Your task to perform on an android device: turn on javascript in the chrome app Image 0: 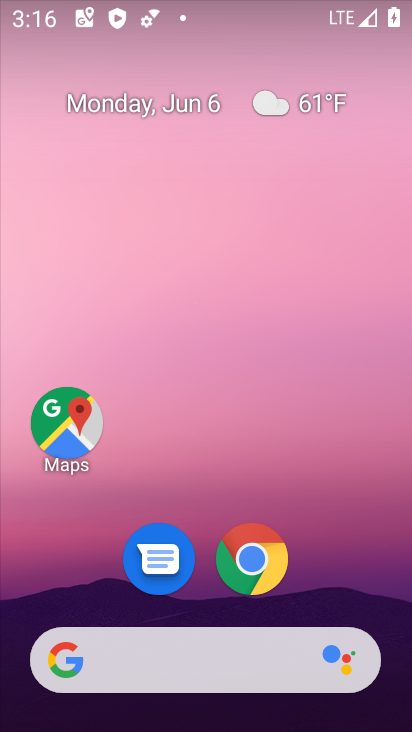
Step 0: click (257, 568)
Your task to perform on an android device: turn on javascript in the chrome app Image 1: 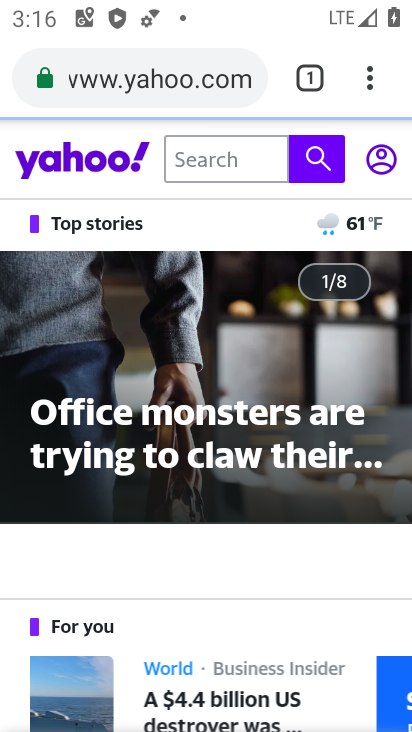
Step 1: drag from (371, 60) to (103, 620)
Your task to perform on an android device: turn on javascript in the chrome app Image 2: 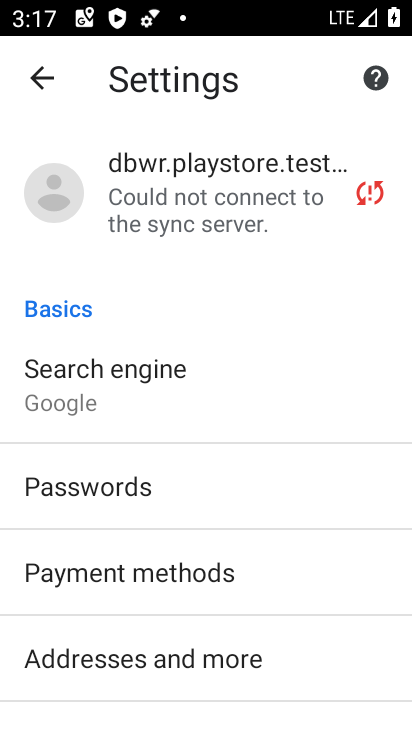
Step 2: drag from (183, 590) to (151, 139)
Your task to perform on an android device: turn on javascript in the chrome app Image 3: 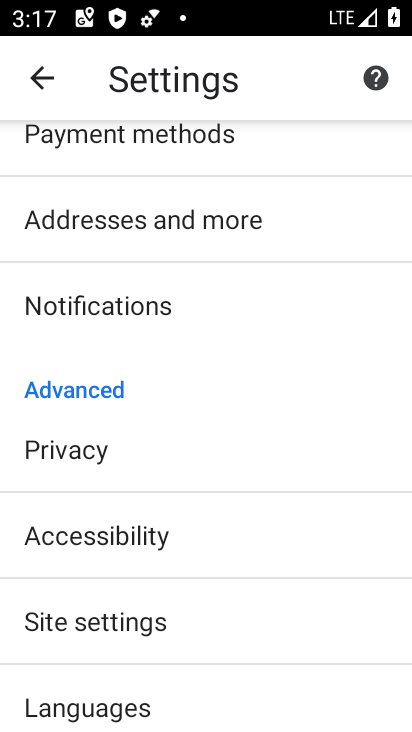
Step 3: drag from (212, 616) to (181, 135)
Your task to perform on an android device: turn on javascript in the chrome app Image 4: 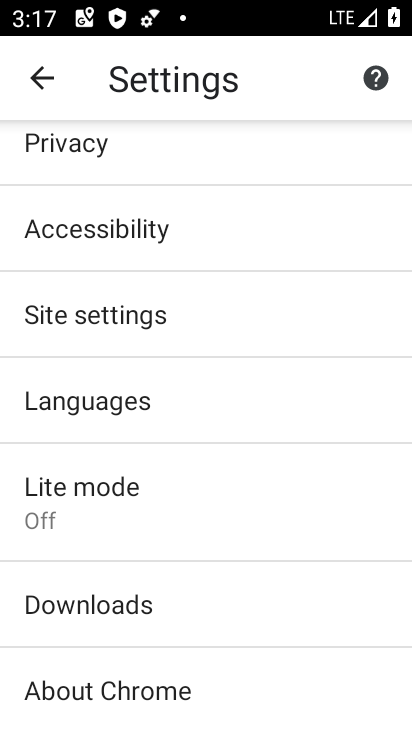
Step 4: click (88, 334)
Your task to perform on an android device: turn on javascript in the chrome app Image 5: 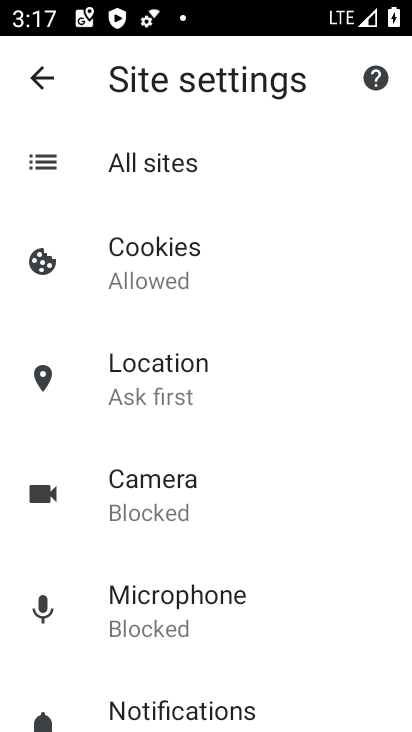
Step 5: drag from (210, 627) to (193, 159)
Your task to perform on an android device: turn on javascript in the chrome app Image 6: 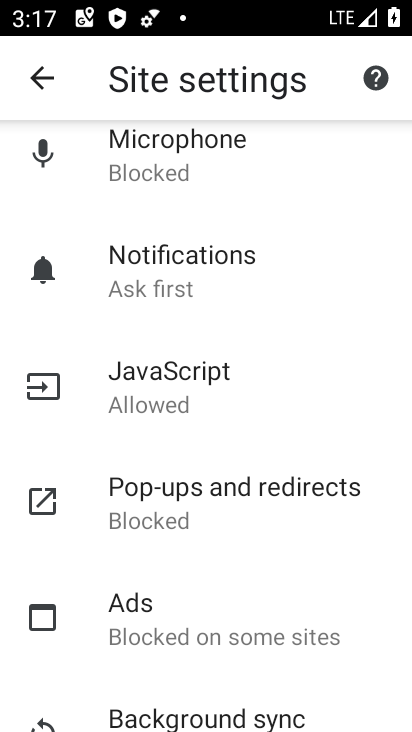
Step 6: drag from (204, 635) to (170, 81)
Your task to perform on an android device: turn on javascript in the chrome app Image 7: 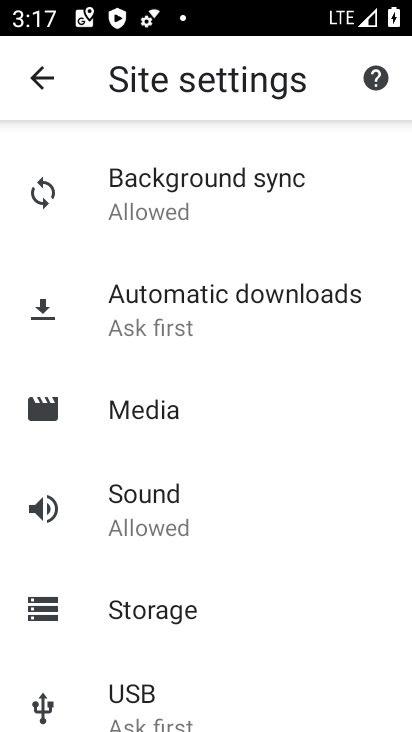
Step 7: drag from (199, 595) to (196, 128)
Your task to perform on an android device: turn on javascript in the chrome app Image 8: 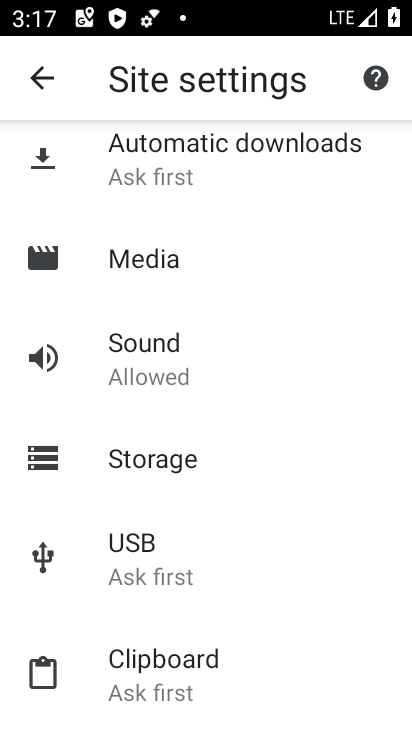
Step 8: drag from (195, 499) to (167, 21)
Your task to perform on an android device: turn on javascript in the chrome app Image 9: 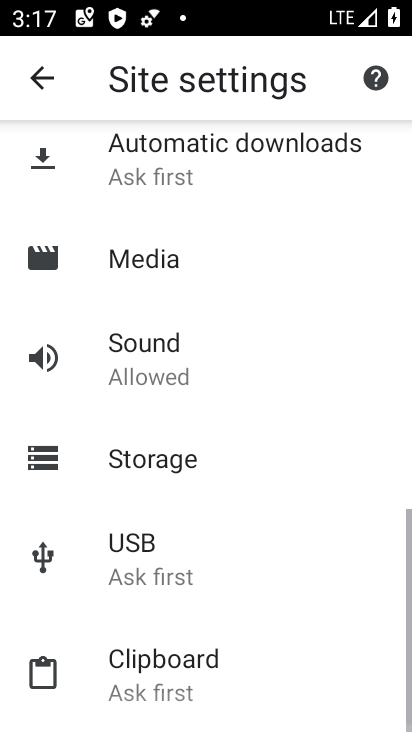
Step 9: drag from (215, 239) to (145, 720)
Your task to perform on an android device: turn on javascript in the chrome app Image 10: 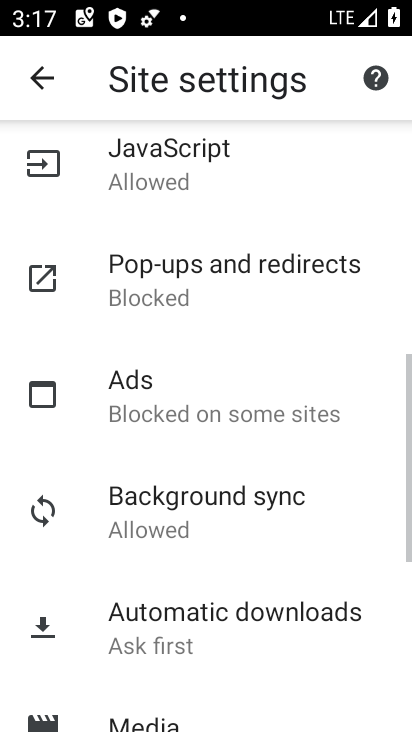
Step 10: drag from (195, 318) to (176, 725)
Your task to perform on an android device: turn on javascript in the chrome app Image 11: 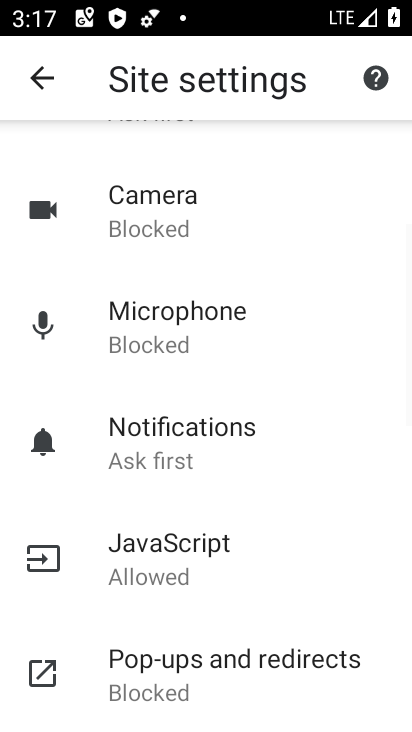
Step 11: click (174, 559)
Your task to perform on an android device: turn on javascript in the chrome app Image 12: 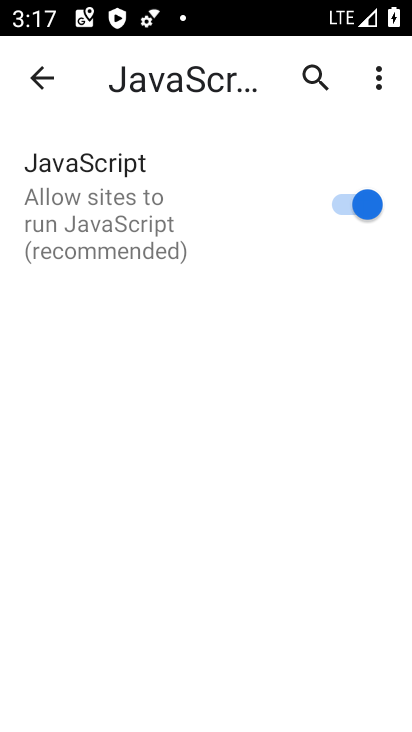
Step 12: task complete